Your task to perform on an android device: Do I have any events tomorrow? Image 0: 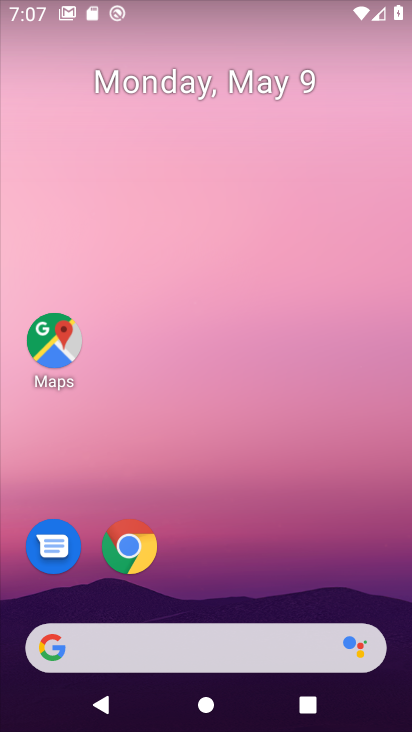
Step 0: drag from (264, 553) to (305, 95)
Your task to perform on an android device: Do I have any events tomorrow? Image 1: 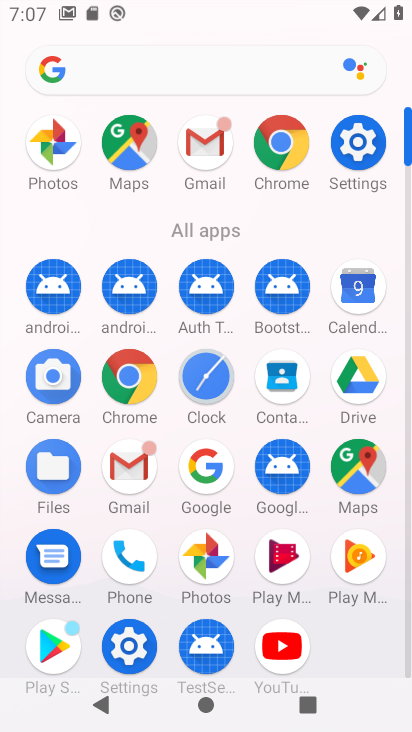
Step 1: click (349, 302)
Your task to perform on an android device: Do I have any events tomorrow? Image 2: 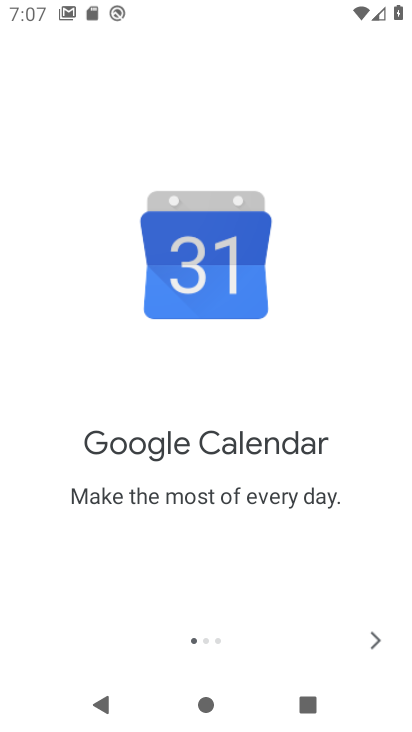
Step 2: click (370, 642)
Your task to perform on an android device: Do I have any events tomorrow? Image 3: 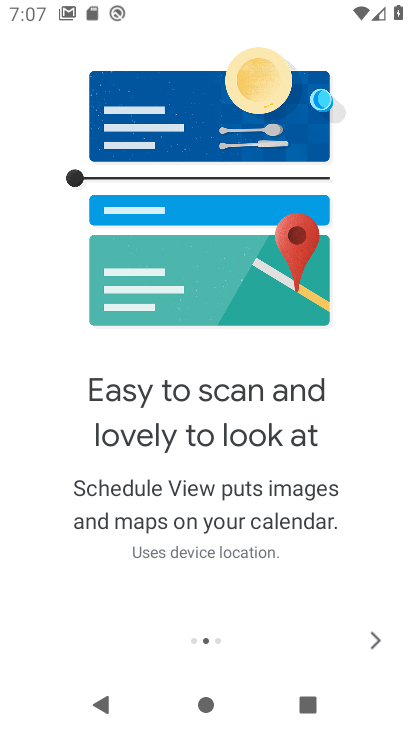
Step 3: click (370, 642)
Your task to perform on an android device: Do I have any events tomorrow? Image 4: 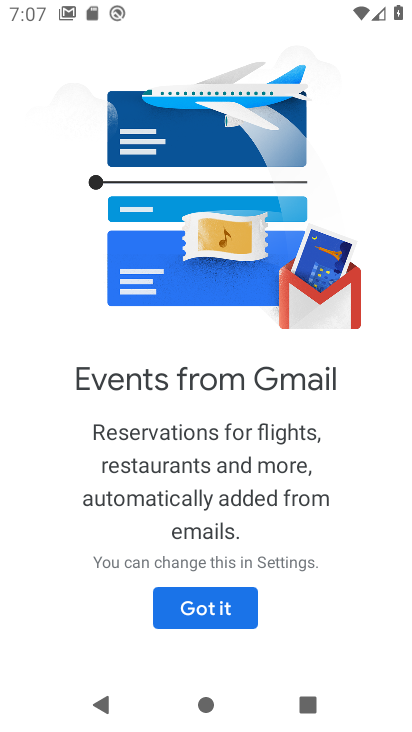
Step 4: click (370, 642)
Your task to perform on an android device: Do I have any events tomorrow? Image 5: 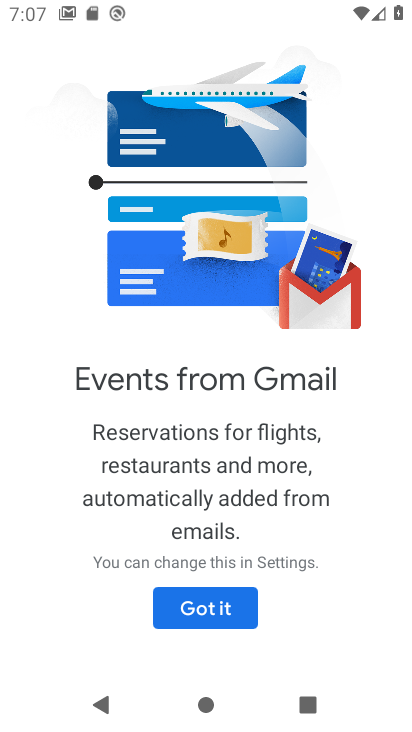
Step 5: click (166, 605)
Your task to perform on an android device: Do I have any events tomorrow? Image 6: 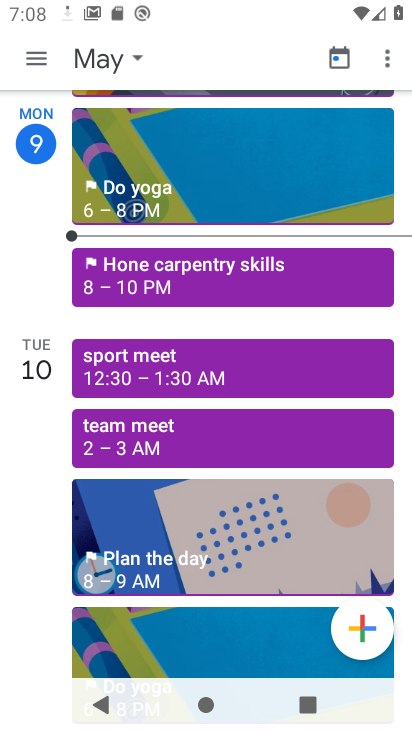
Step 6: click (119, 65)
Your task to perform on an android device: Do I have any events tomorrow? Image 7: 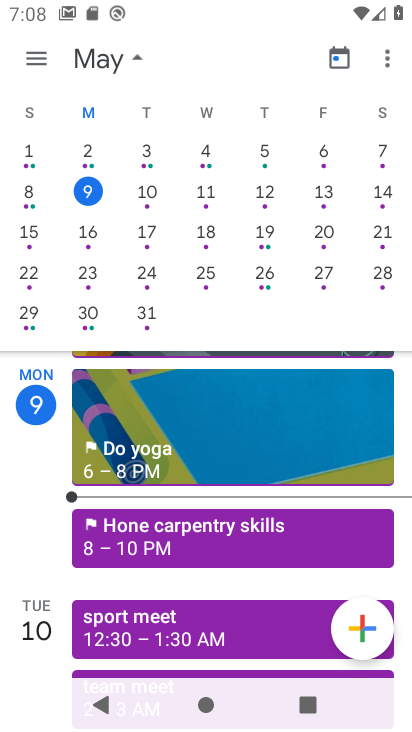
Step 7: click (144, 187)
Your task to perform on an android device: Do I have any events tomorrow? Image 8: 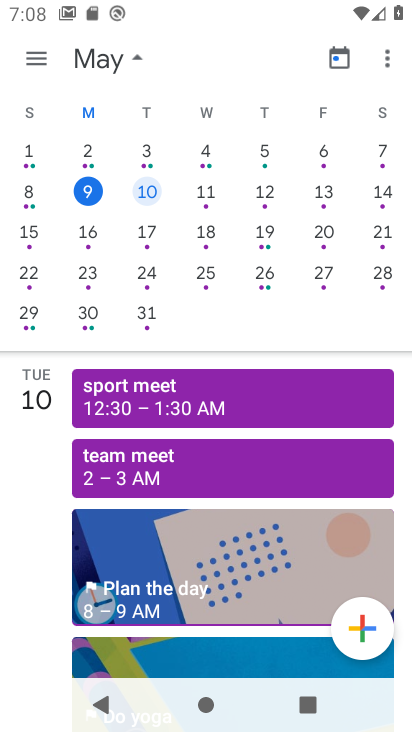
Step 8: task complete